Your task to perform on an android device: turn off location Image 0: 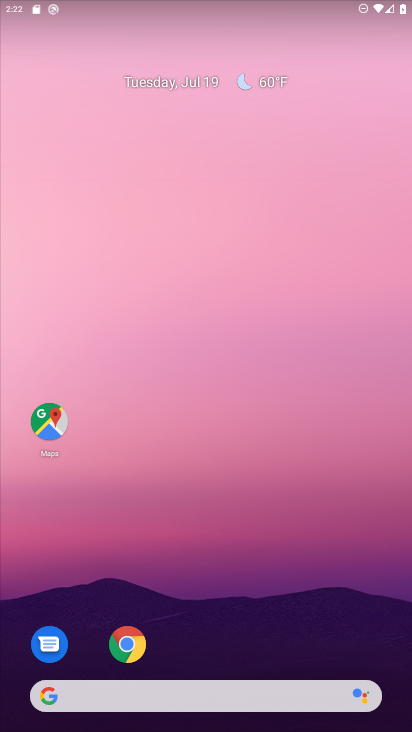
Step 0: drag from (381, 477) to (350, 66)
Your task to perform on an android device: turn off location Image 1: 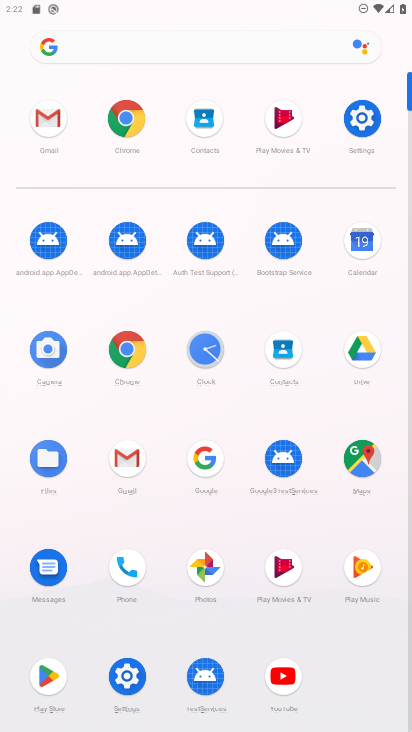
Step 1: click (377, 119)
Your task to perform on an android device: turn off location Image 2: 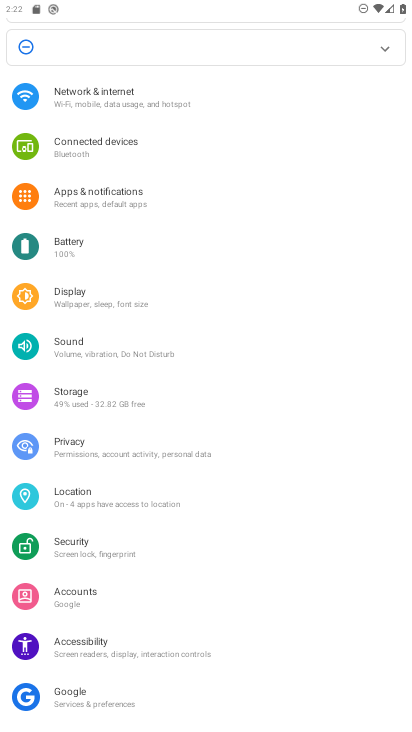
Step 2: click (86, 494)
Your task to perform on an android device: turn off location Image 3: 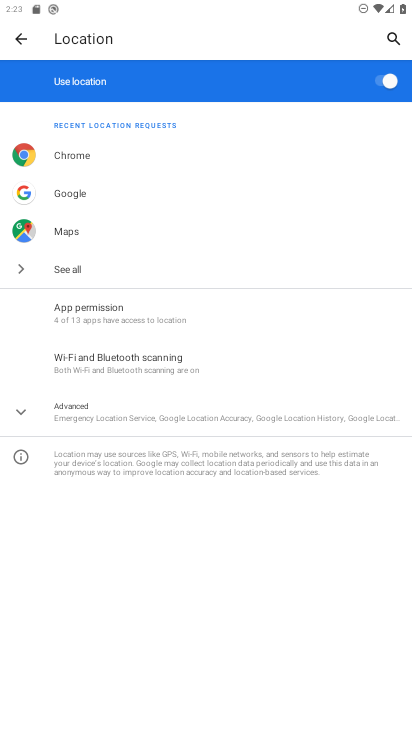
Step 3: click (385, 75)
Your task to perform on an android device: turn off location Image 4: 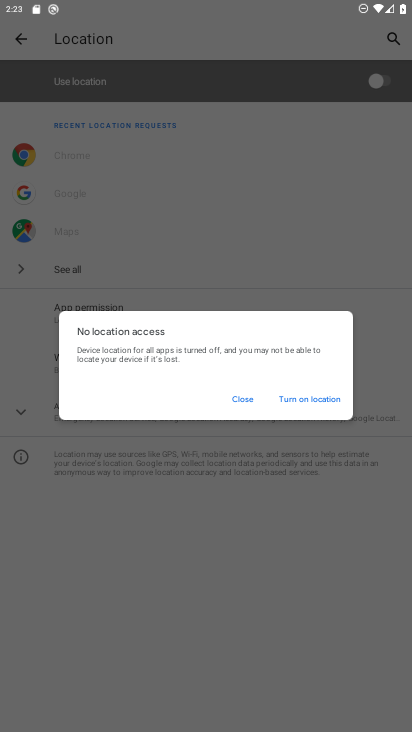
Step 4: task complete